Your task to perform on an android device: Open my contact list Image 0: 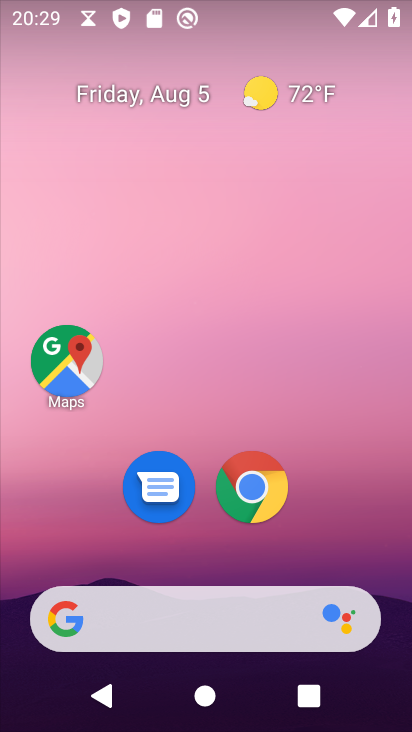
Step 0: drag from (167, 610) to (308, 0)
Your task to perform on an android device: Open my contact list Image 1: 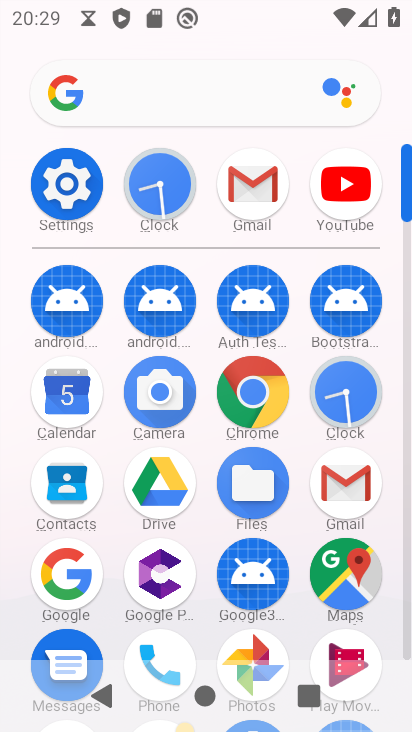
Step 1: click (59, 482)
Your task to perform on an android device: Open my contact list Image 2: 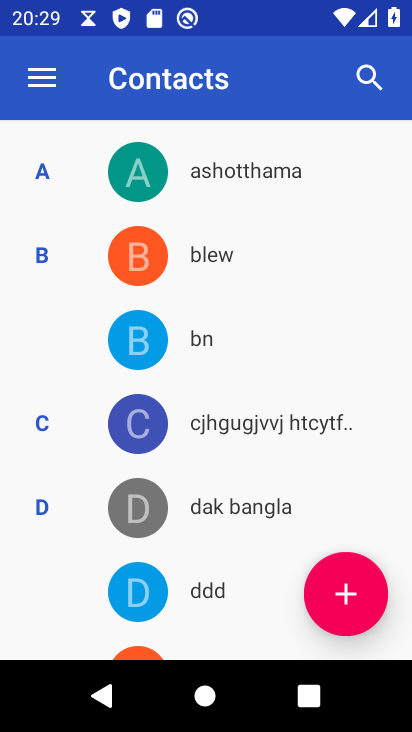
Step 2: task complete